Your task to perform on an android device: Open calendar and show me the fourth week of next month Image 0: 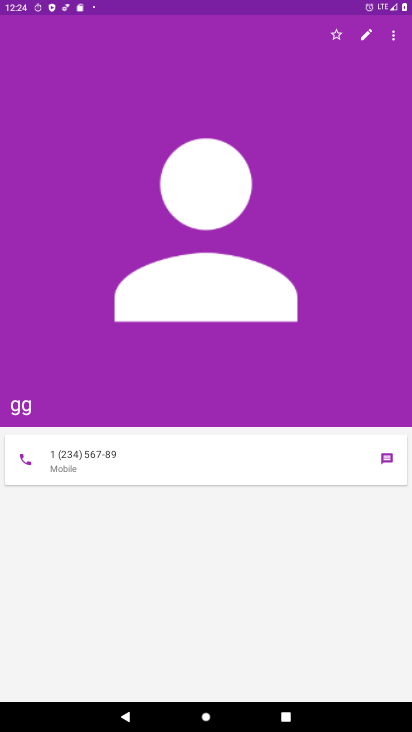
Step 0: press home button
Your task to perform on an android device: Open calendar and show me the fourth week of next month Image 1: 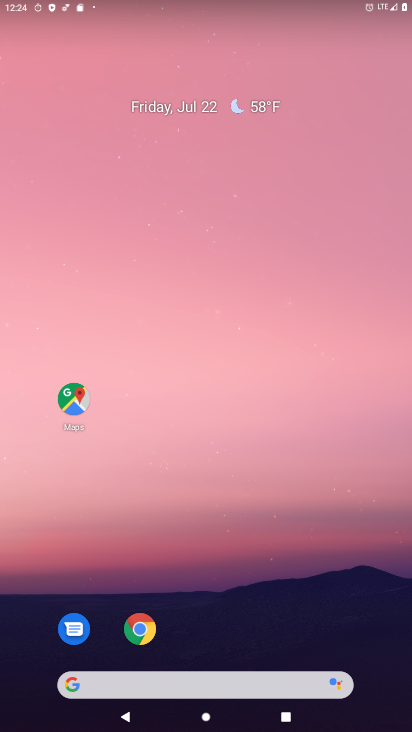
Step 1: drag from (356, 601) to (355, 62)
Your task to perform on an android device: Open calendar and show me the fourth week of next month Image 2: 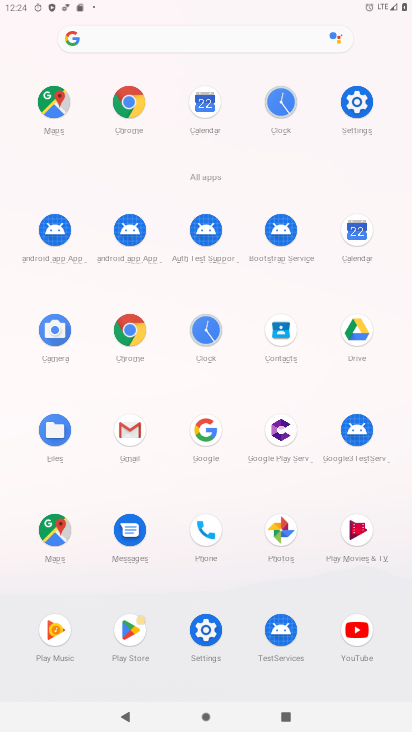
Step 2: click (363, 234)
Your task to perform on an android device: Open calendar and show me the fourth week of next month Image 3: 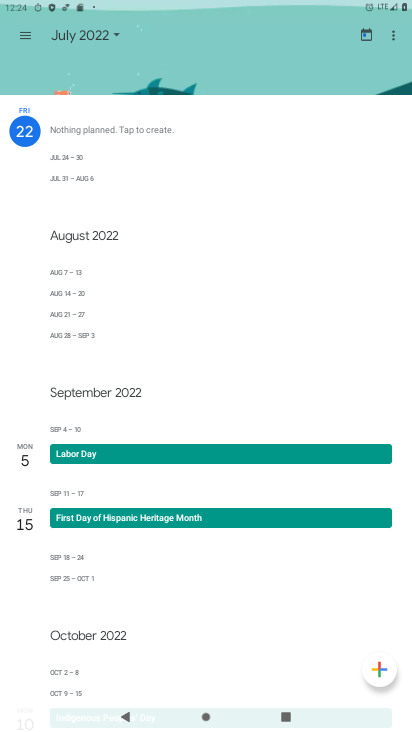
Step 3: click (113, 30)
Your task to perform on an android device: Open calendar and show me the fourth week of next month Image 4: 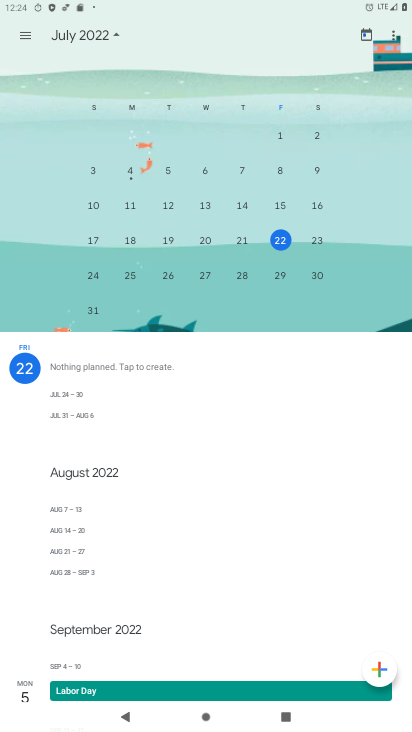
Step 4: drag from (358, 154) to (44, 135)
Your task to perform on an android device: Open calendar and show me the fourth week of next month Image 5: 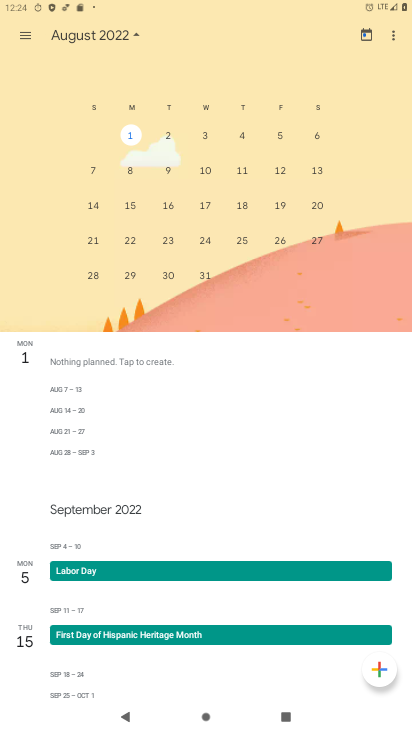
Step 5: click (127, 240)
Your task to perform on an android device: Open calendar and show me the fourth week of next month Image 6: 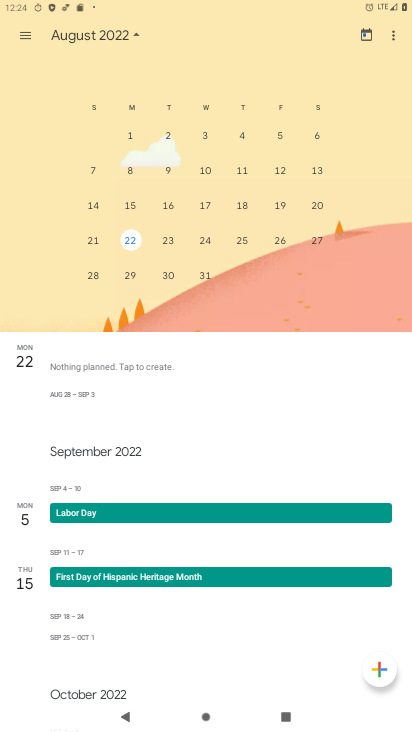
Step 6: task complete